Your task to perform on an android device: delete a single message in the gmail app Image 0: 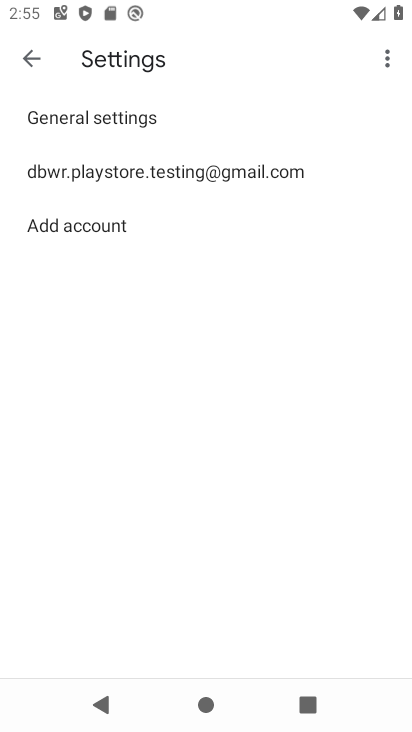
Step 0: press back button
Your task to perform on an android device: delete a single message in the gmail app Image 1: 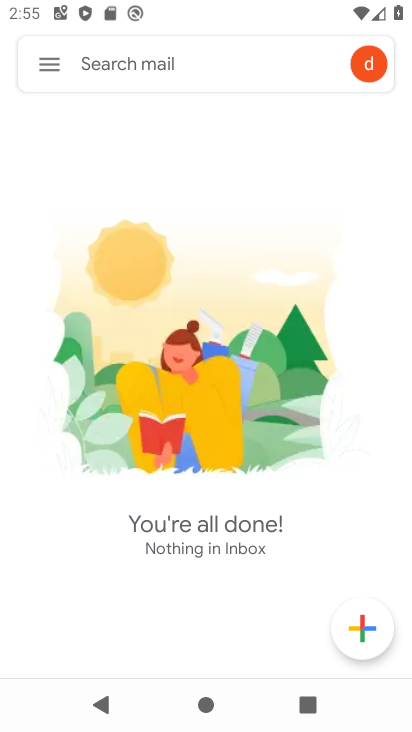
Step 1: click (55, 41)
Your task to perform on an android device: delete a single message in the gmail app Image 2: 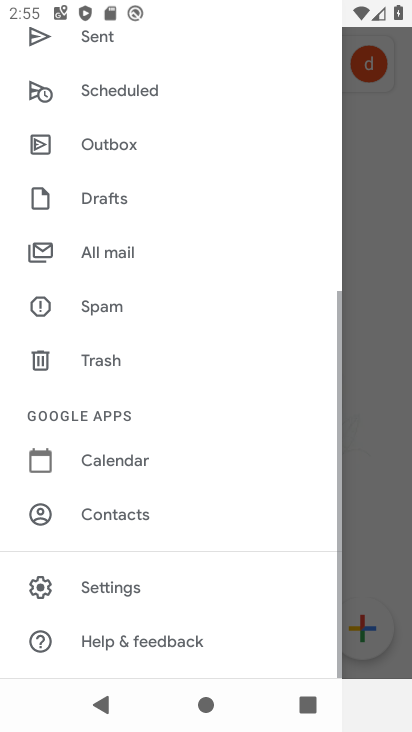
Step 2: drag from (186, 78) to (243, 525)
Your task to perform on an android device: delete a single message in the gmail app Image 3: 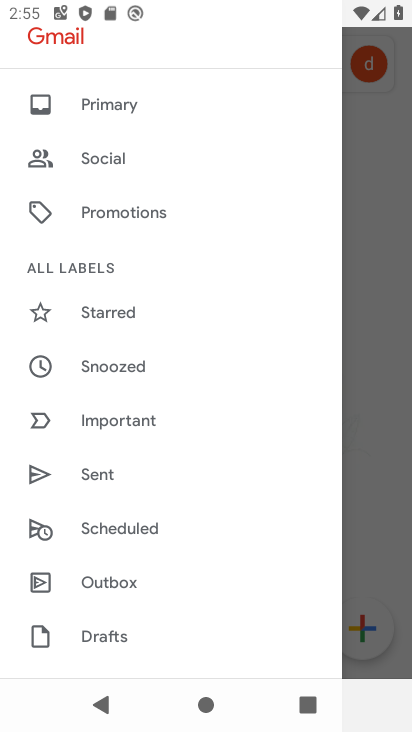
Step 3: click (148, 103)
Your task to perform on an android device: delete a single message in the gmail app Image 4: 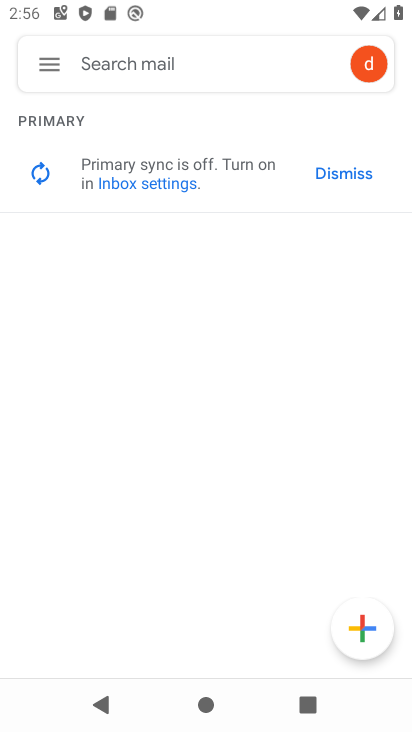
Step 4: click (28, 59)
Your task to perform on an android device: delete a single message in the gmail app Image 5: 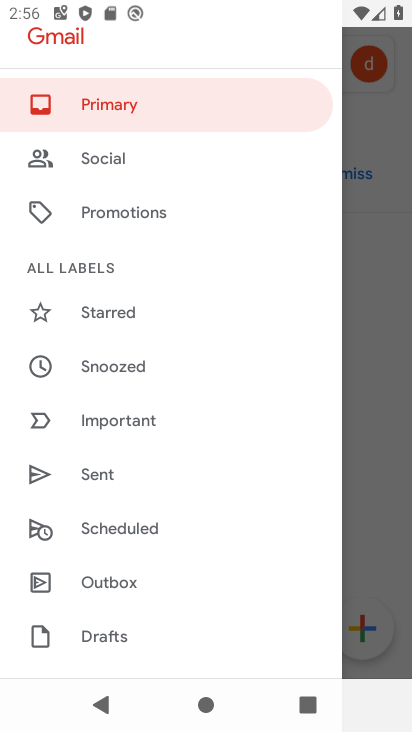
Step 5: drag from (184, 376) to (187, 148)
Your task to perform on an android device: delete a single message in the gmail app Image 6: 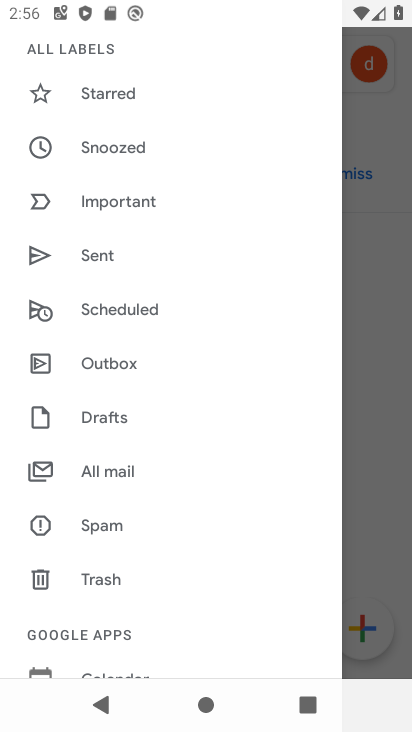
Step 6: click (134, 471)
Your task to perform on an android device: delete a single message in the gmail app Image 7: 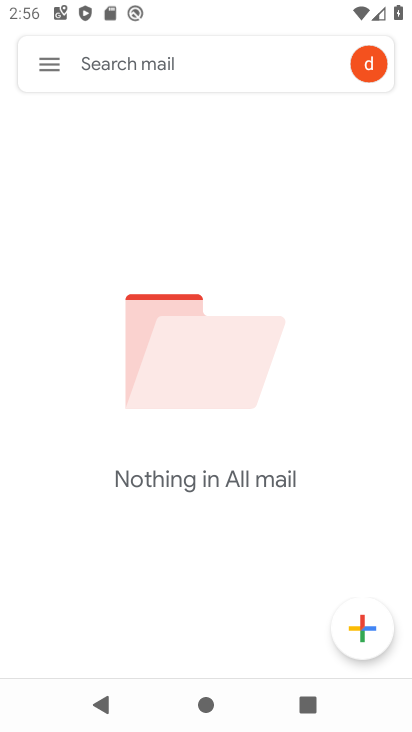
Step 7: task complete